Your task to perform on an android device: search for starred emails in the gmail app Image 0: 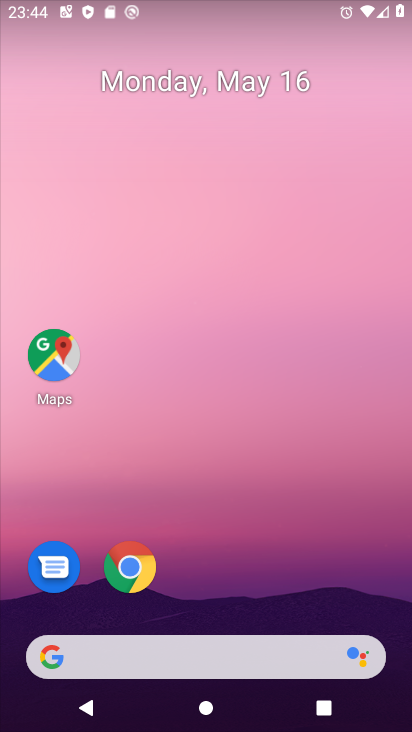
Step 0: drag from (264, 567) to (175, 66)
Your task to perform on an android device: search for starred emails in the gmail app Image 1: 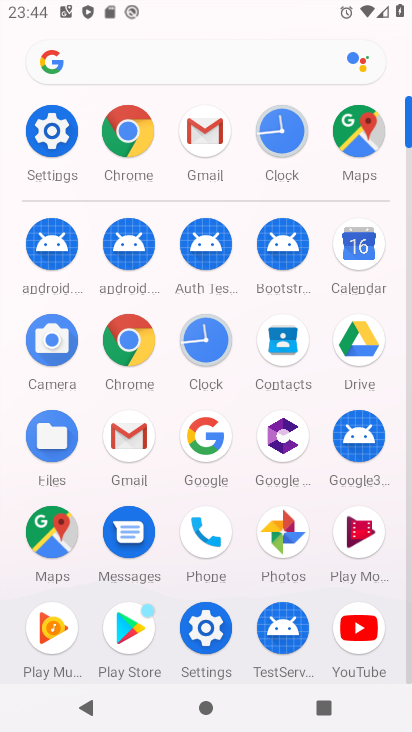
Step 1: click (124, 425)
Your task to perform on an android device: search for starred emails in the gmail app Image 2: 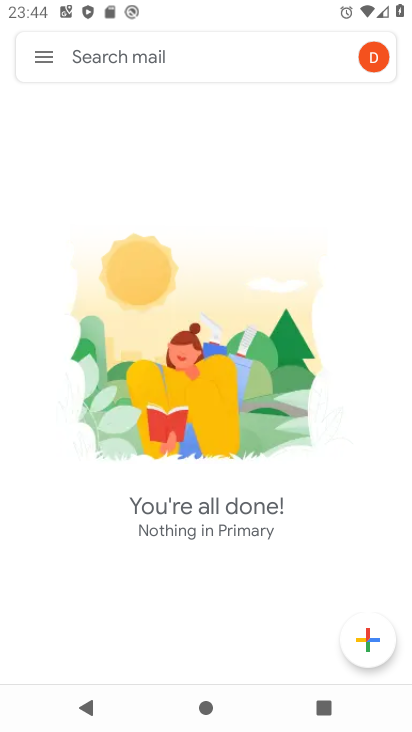
Step 2: click (45, 54)
Your task to perform on an android device: search for starred emails in the gmail app Image 3: 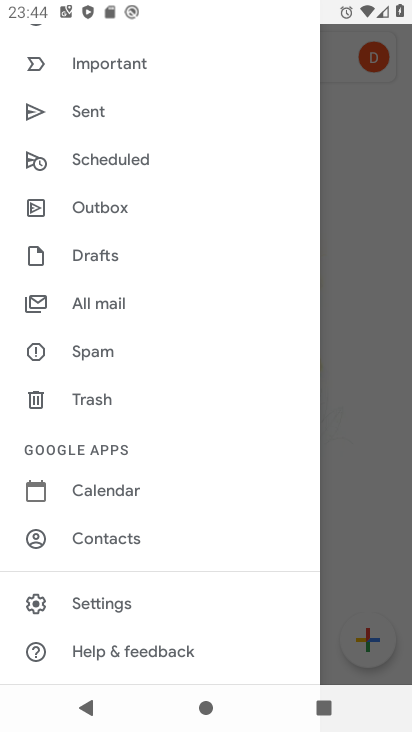
Step 3: drag from (187, 194) to (224, 506)
Your task to perform on an android device: search for starred emails in the gmail app Image 4: 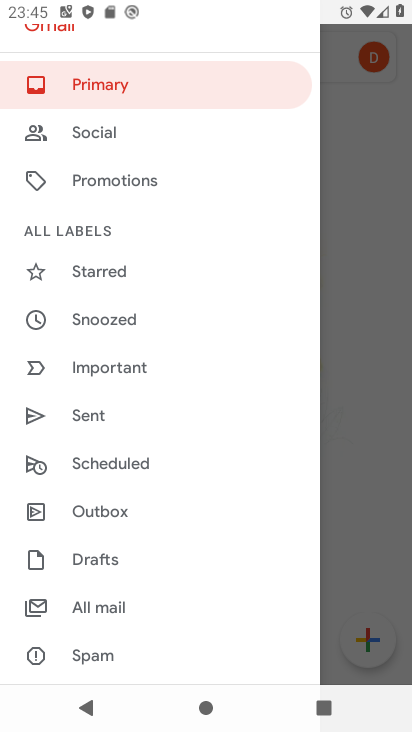
Step 4: click (99, 262)
Your task to perform on an android device: search for starred emails in the gmail app Image 5: 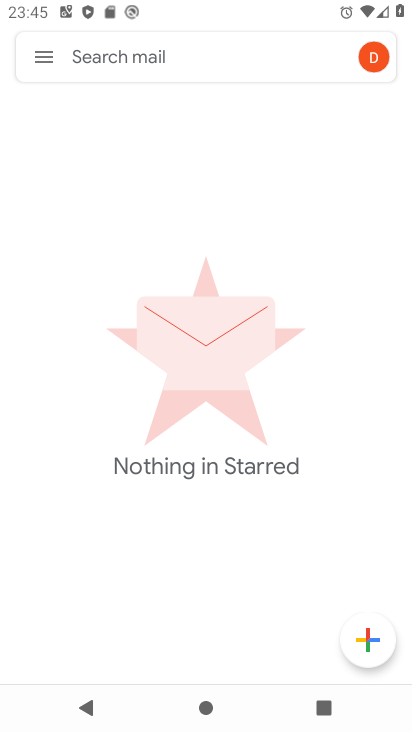
Step 5: task complete